Your task to perform on an android device: remove spam from my inbox in the gmail app Image 0: 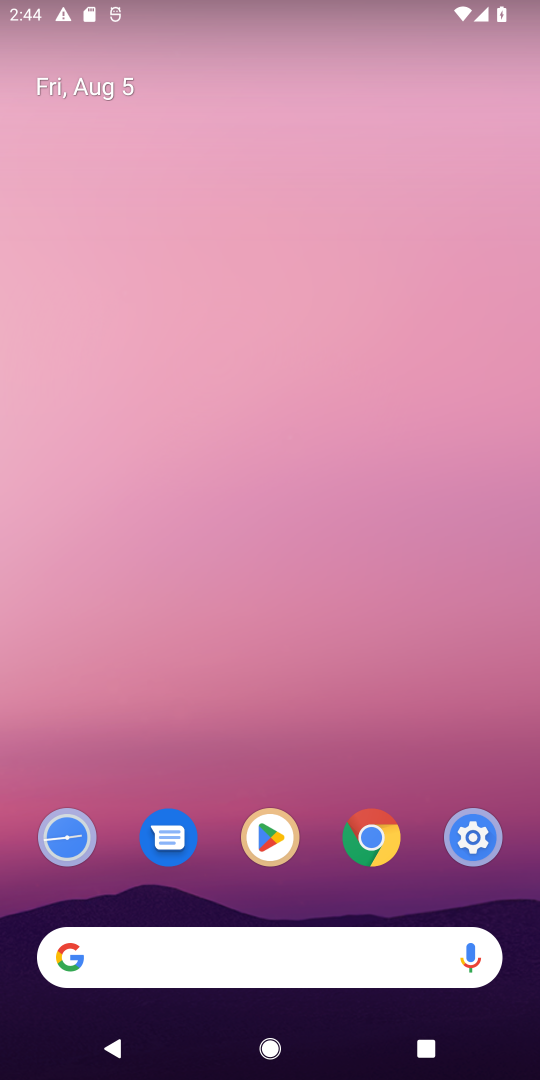
Step 0: click (254, 37)
Your task to perform on an android device: remove spam from my inbox in the gmail app Image 1: 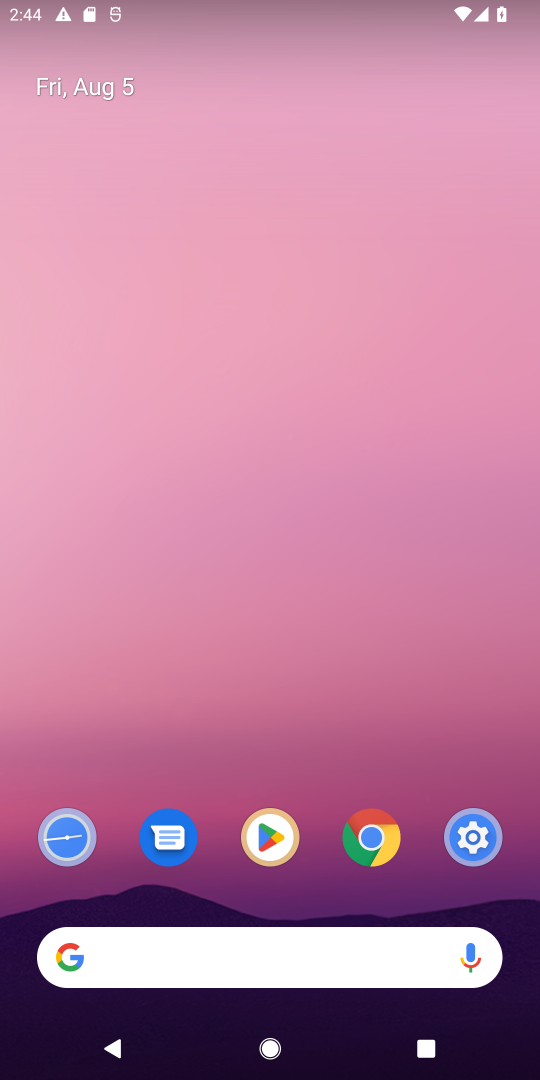
Step 1: drag from (285, 792) to (241, 220)
Your task to perform on an android device: remove spam from my inbox in the gmail app Image 2: 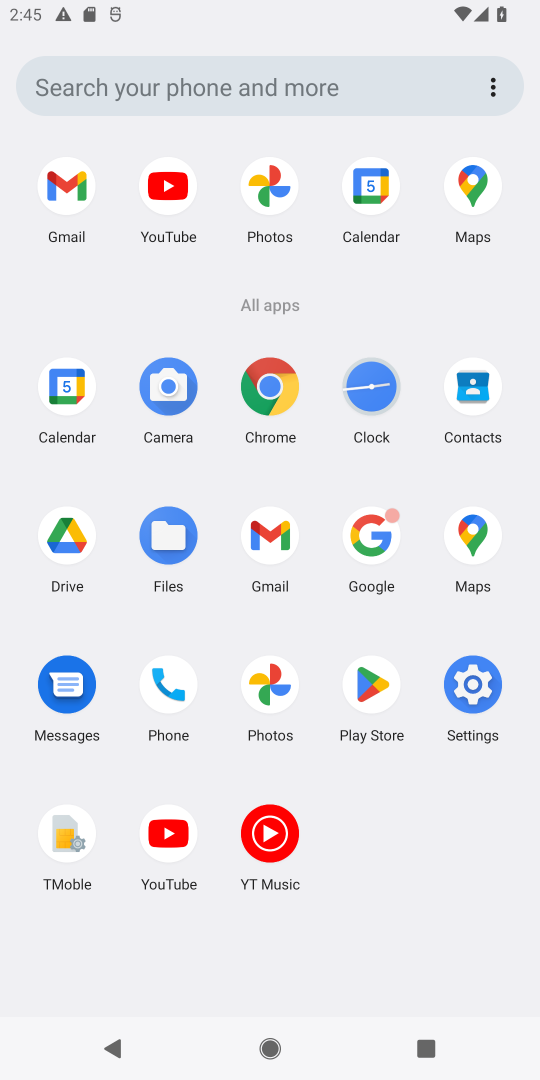
Step 2: click (271, 547)
Your task to perform on an android device: remove spam from my inbox in the gmail app Image 3: 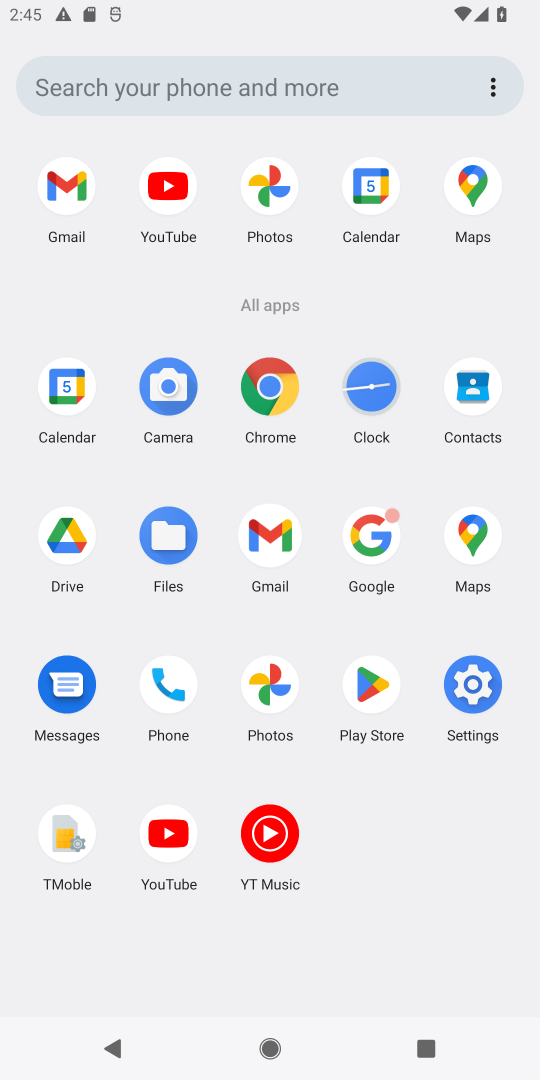
Step 3: click (269, 548)
Your task to perform on an android device: remove spam from my inbox in the gmail app Image 4: 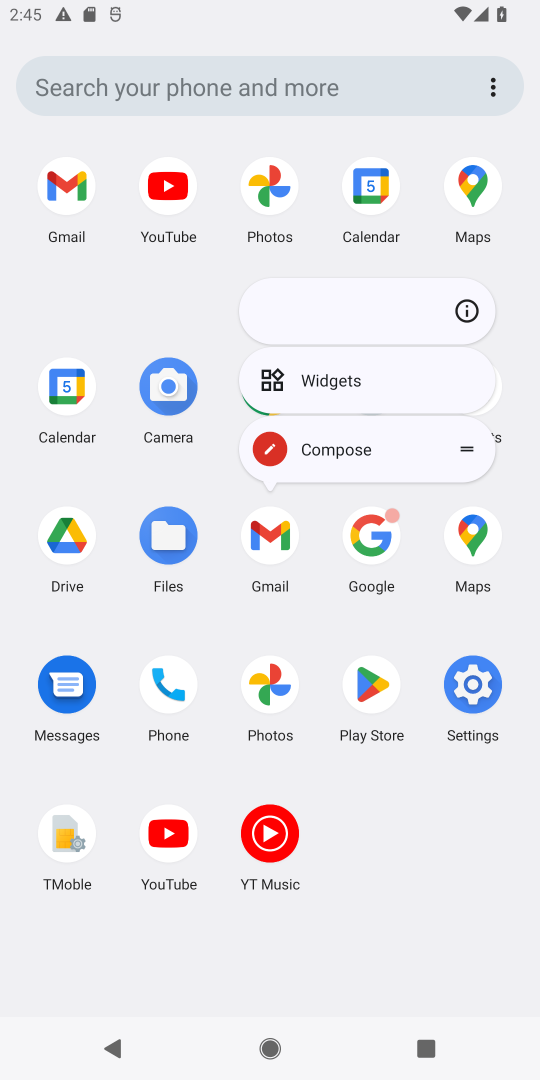
Step 4: click (266, 536)
Your task to perform on an android device: remove spam from my inbox in the gmail app Image 5: 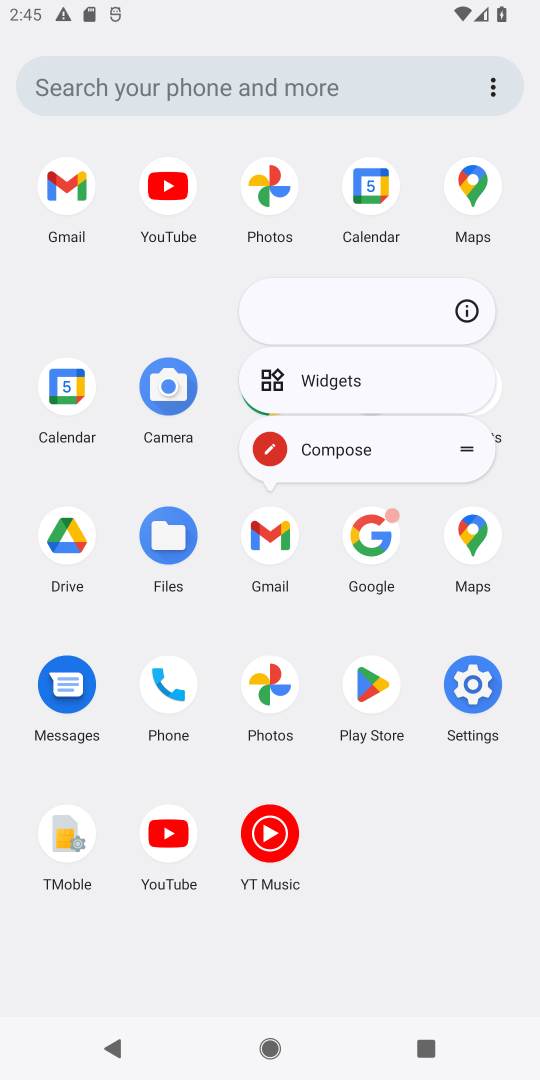
Step 5: click (265, 537)
Your task to perform on an android device: remove spam from my inbox in the gmail app Image 6: 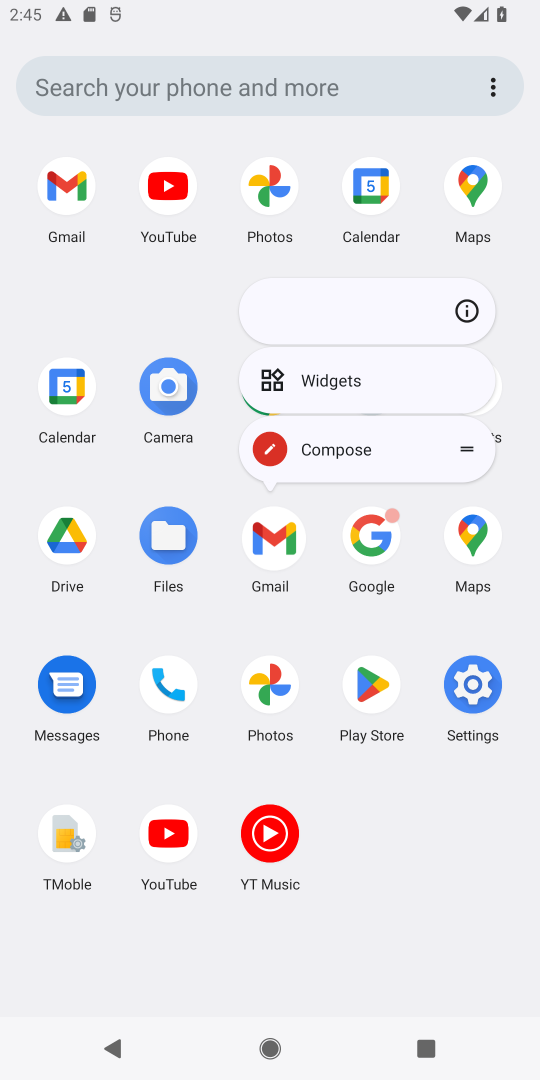
Step 6: click (270, 541)
Your task to perform on an android device: remove spam from my inbox in the gmail app Image 7: 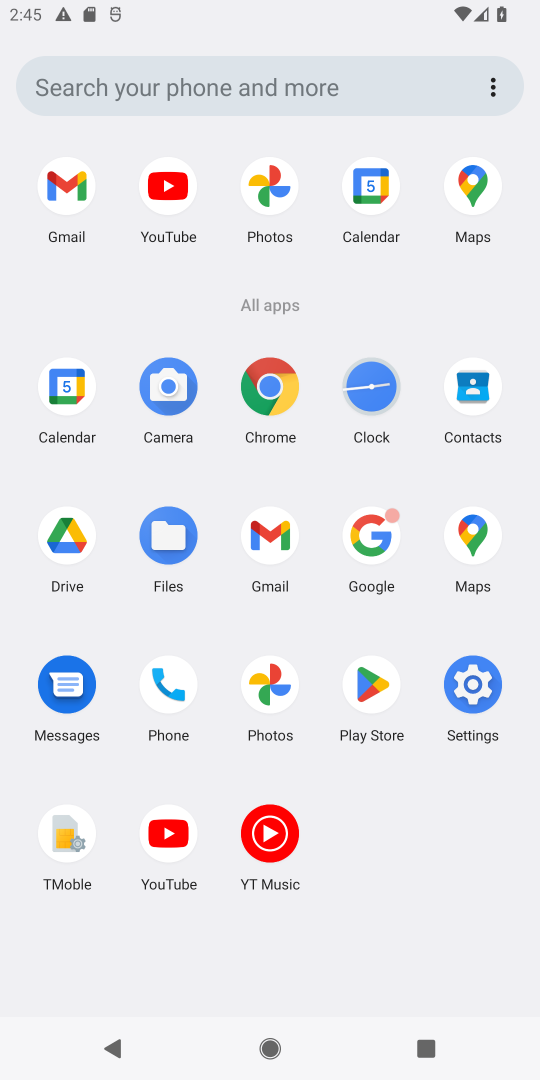
Step 7: click (277, 542)
Your task to perform on an android device: remove spam from my inbox in the gmail app Image 8: 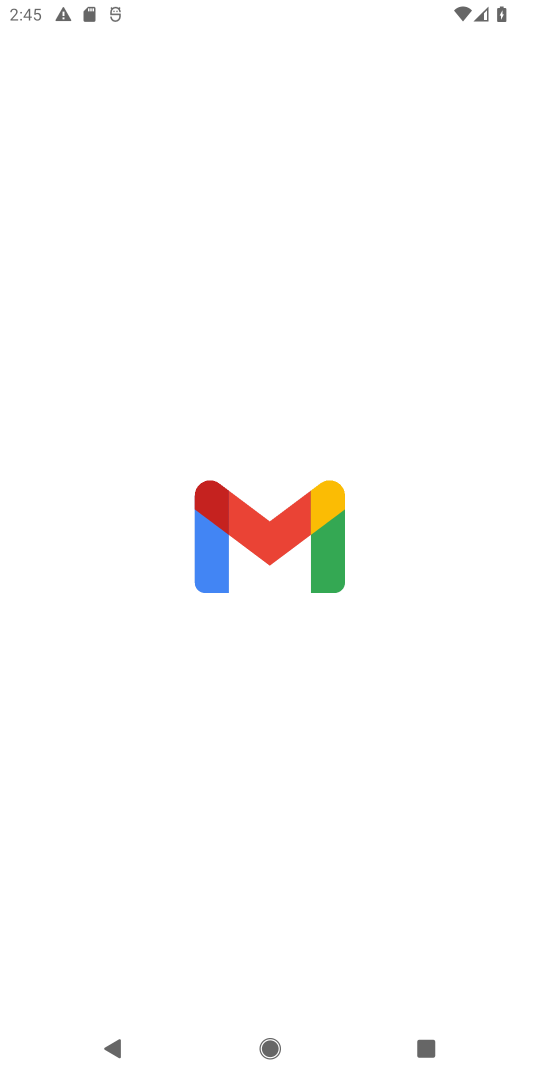
Step 8: click (268, 534)
Your task to perform on an android device: remove spam from my inbox in the gmail app Image 9: 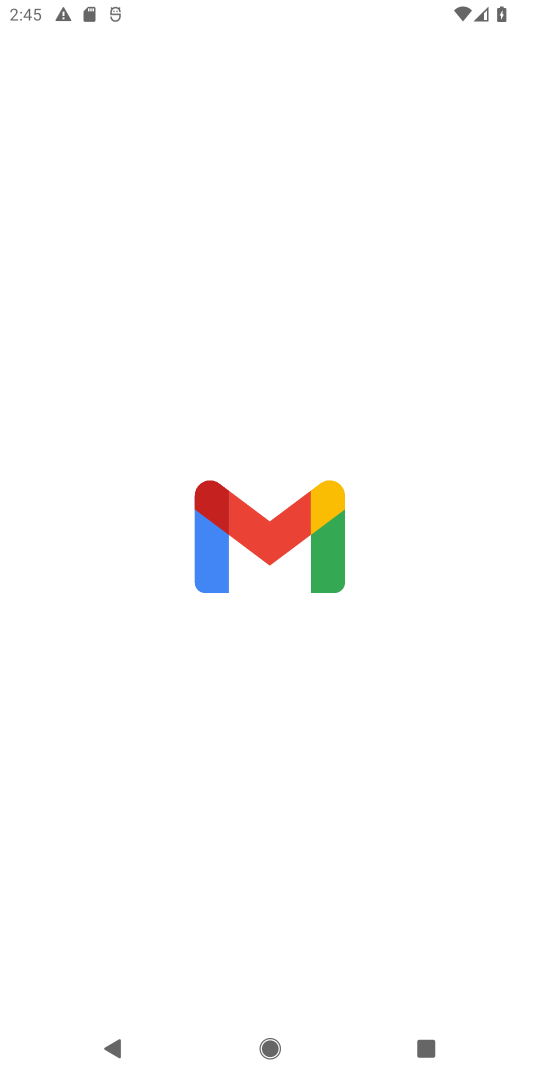
Step 9: click (354, 758)
Your task to perform on an android device: remove spam from my inbox in the gmail app Image 10: 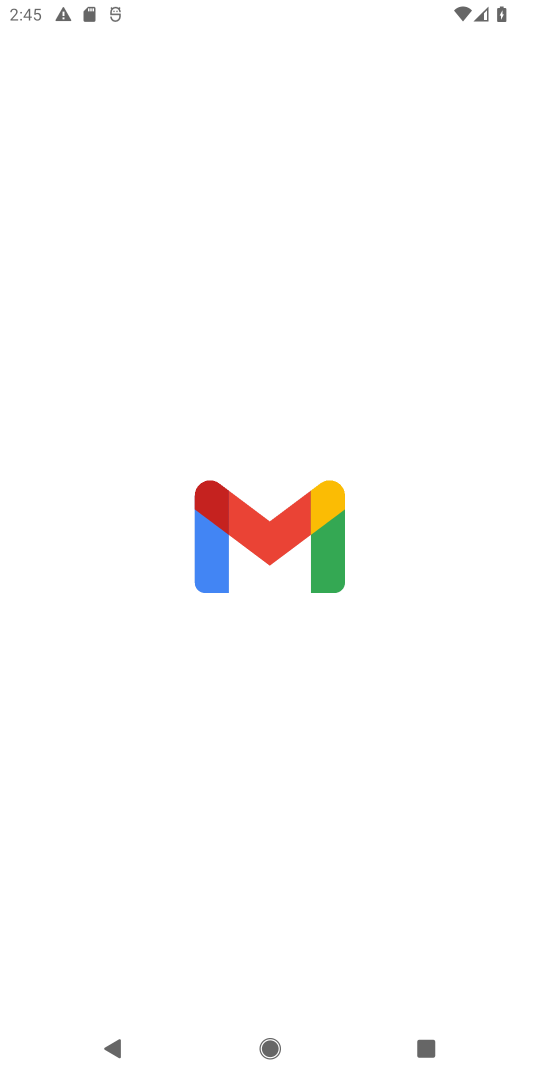
Step 10: click (354, 741)
Your task to perform on an android device: remove spam from my inbox in the gmail app Image 11: 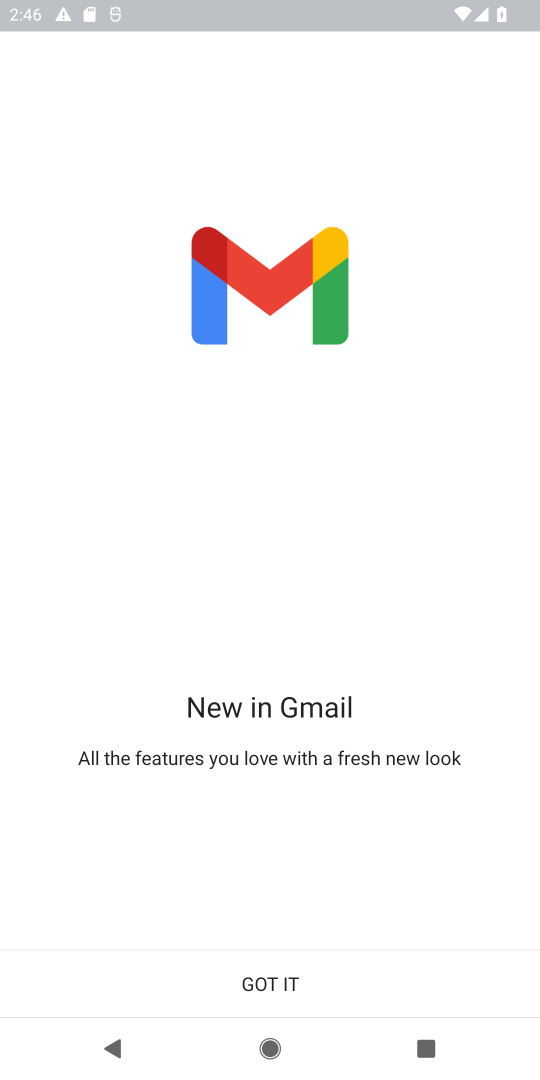
Step 11: click (284, 969)
Your task to perform on an android device: remove spam from my inbox in the gmail app Image 12: 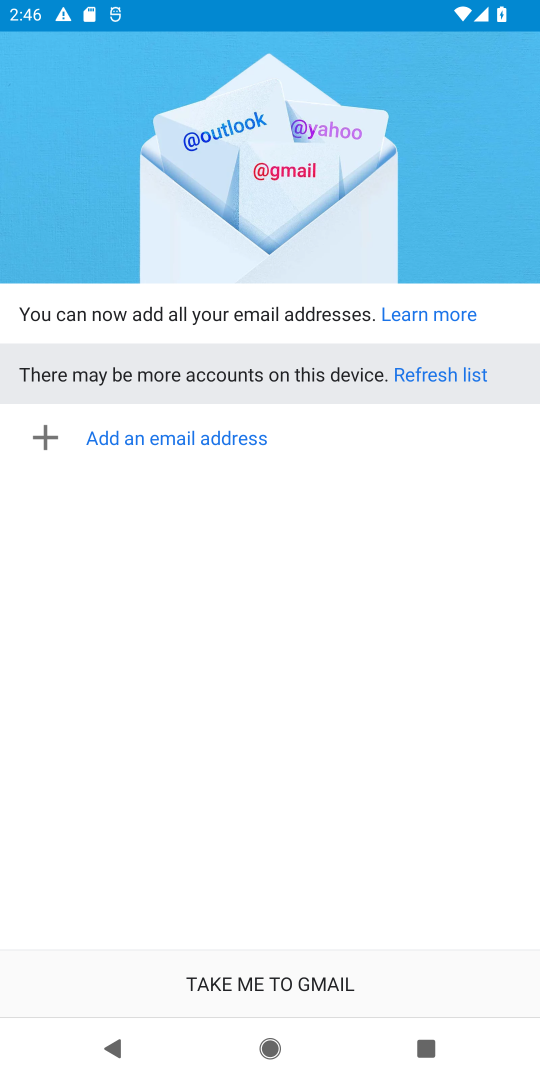
Step 12: click (325, 987)
Your task to perform on an android device: remove spam from my inbox in the gmail app Image 13: 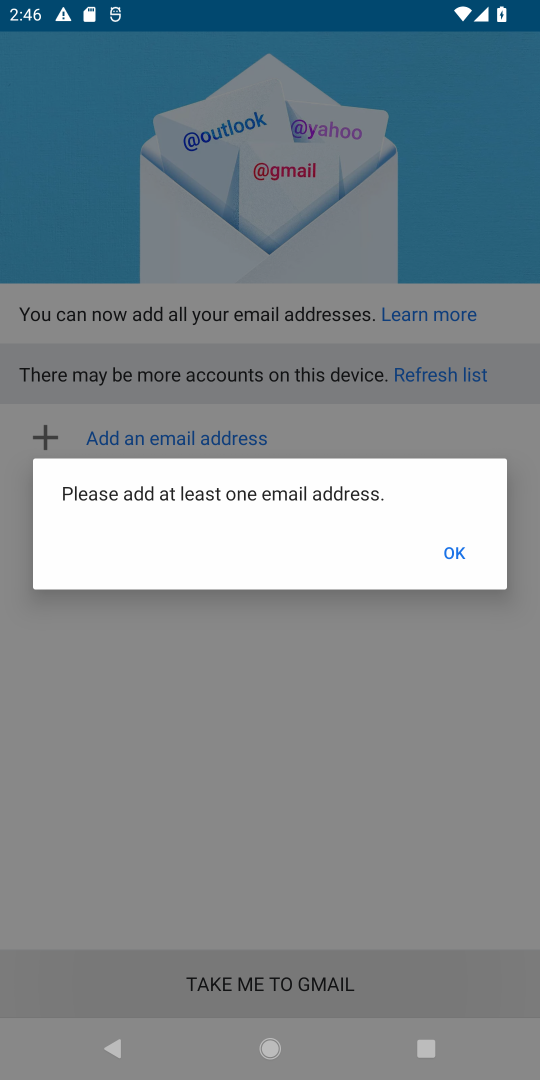
Step 13: click (325, 987)
Your task to perform on an android device: remove spam from my inbox in the gmail app Image 14: 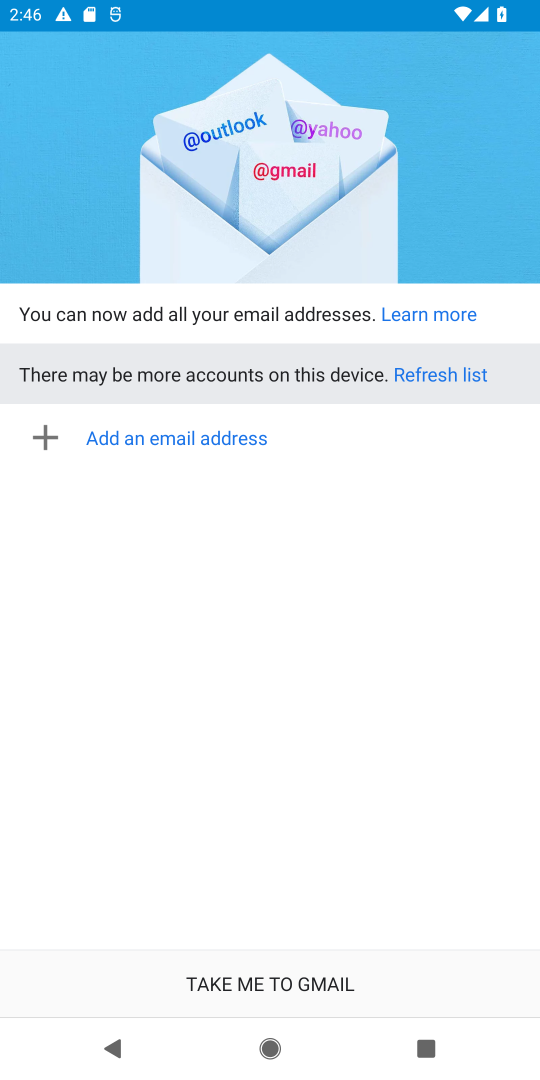
Step 14: click (456, 556)
Your task to perform on an android device: remove spam from my inbox in the gmail app Image 15: 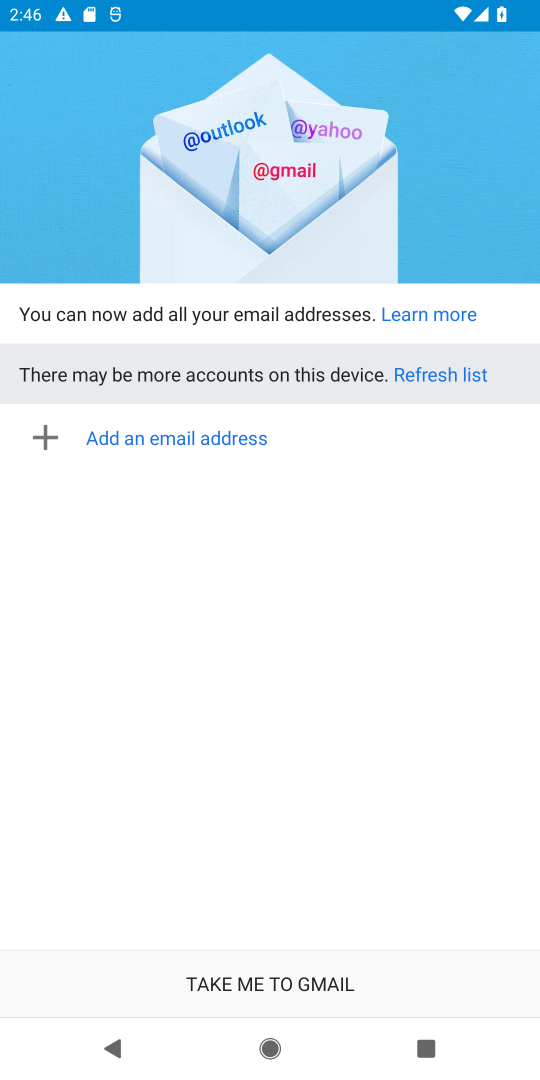
Step 15: click (456, 556)
Your task to perform on an android device: remove spam from my inbox in the gmail app Image 16: 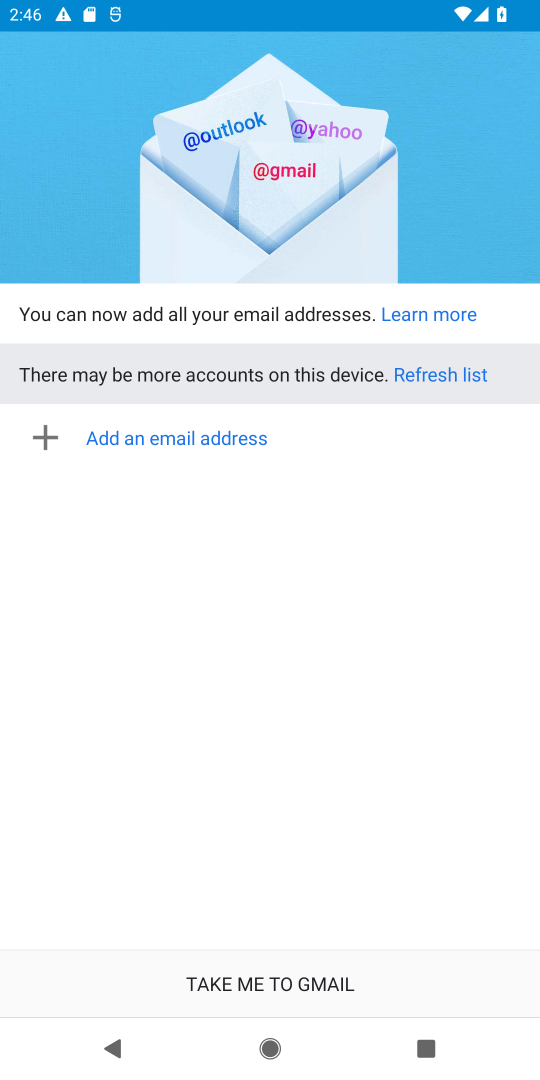
Step 16: click (316, 991)
Your task to perform on an android device: remove spam from my inbox in the gmail app Image 17: 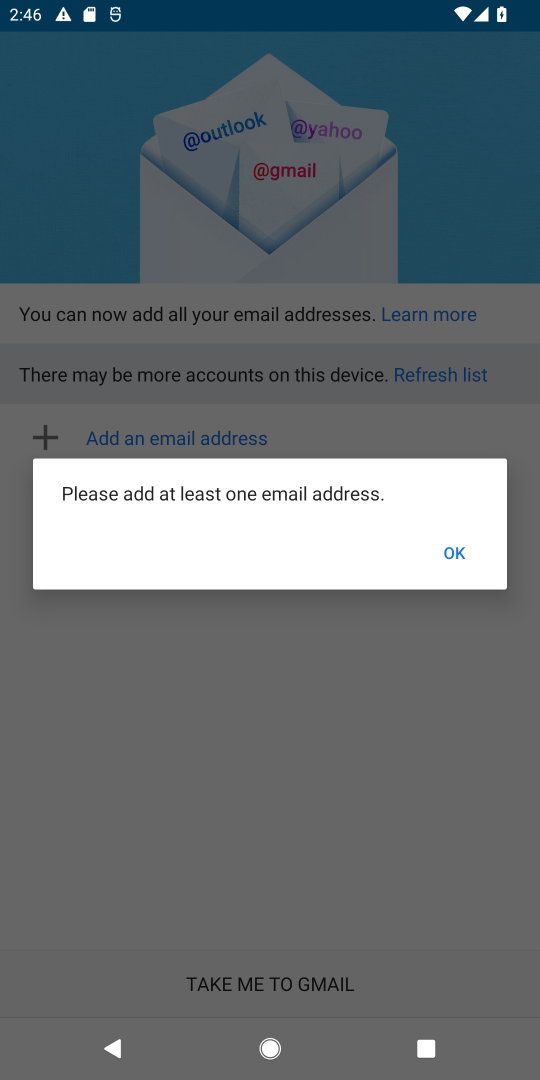
Step 17: task complete